Your task to perform on an android device: turn off priority inbox in the gmail app Image 0: 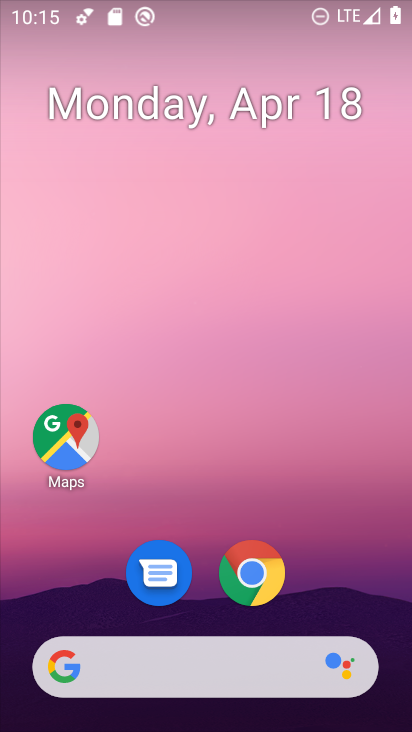
Step 0: drag from (359, 589) to (316, 155)
Your task to perform on an android device: turn off priority inbox in the gmail app Image 1: 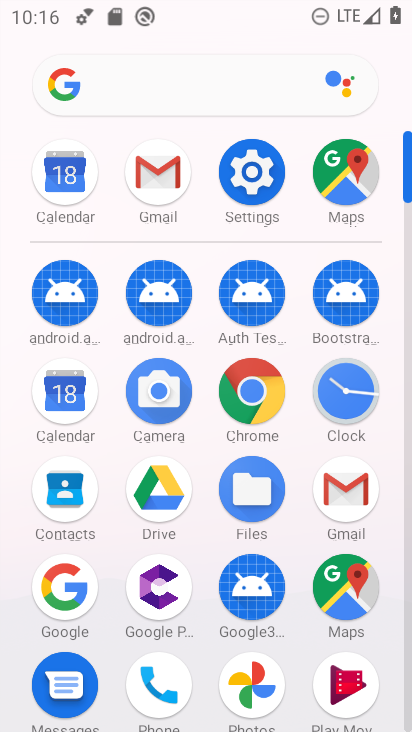
Step 1: click (352, 486)
Your task to perform on an android device: turn off priority inbox in the gmail app Image 2: 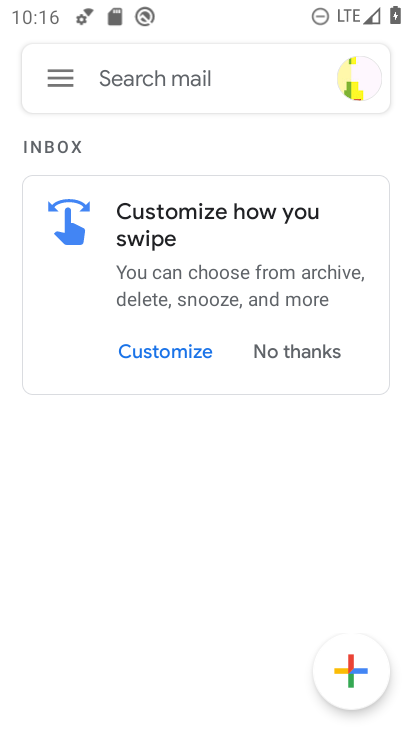
Step 2: click (56, 85)
Your task to perform on an android device: turn off priority inbox in the gmail app Image 3: 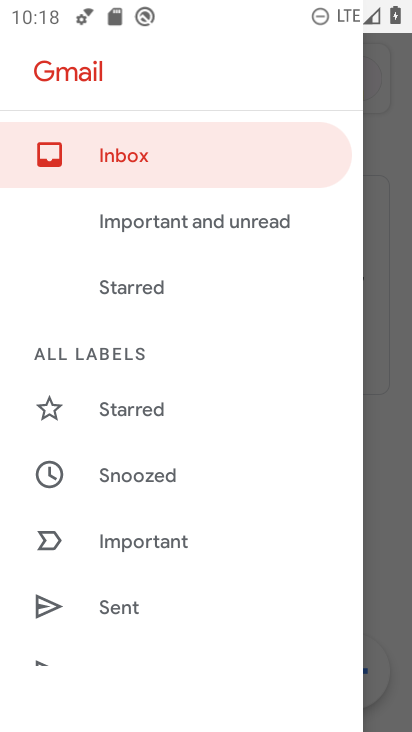
Step 3: drag from (151, 602) to (211, 101)
Your task to perform on an android device: turn off priority inbox in the gmail app Image 4: 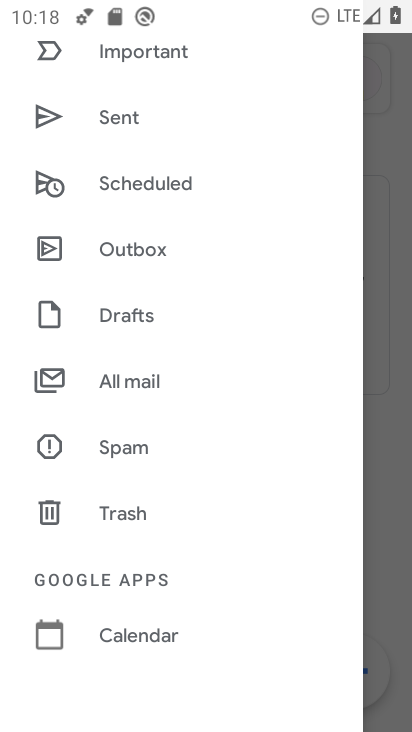
Step 4: drag from (137, 612) to (167, 91)
Your task to perform on an android device: turn off priority inbox in the gmail app Image 5: 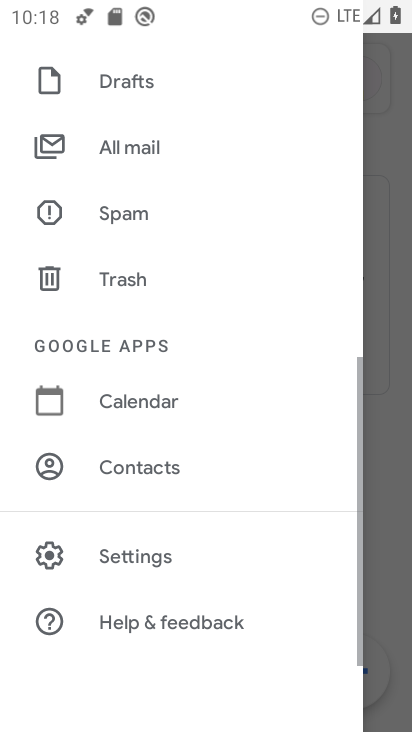
Step 5: click (155, 547)
Your task to perform on an android device: turn off priority inbox in the gmail app Image 6: 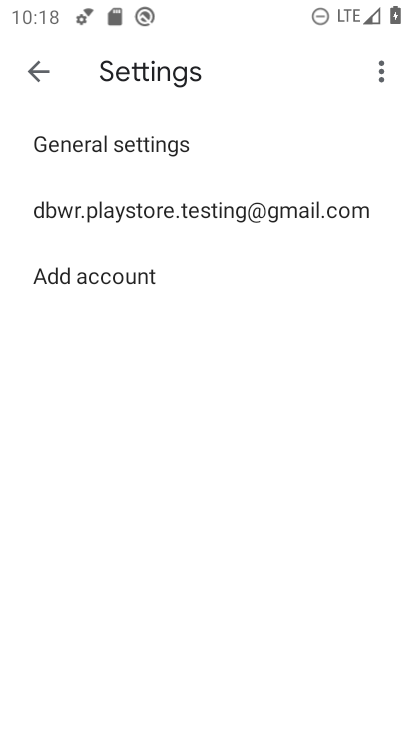
Step 6: click (157, 226)
Your task to perform on an android device: turn off priority inbox in the gmail app Image 7: 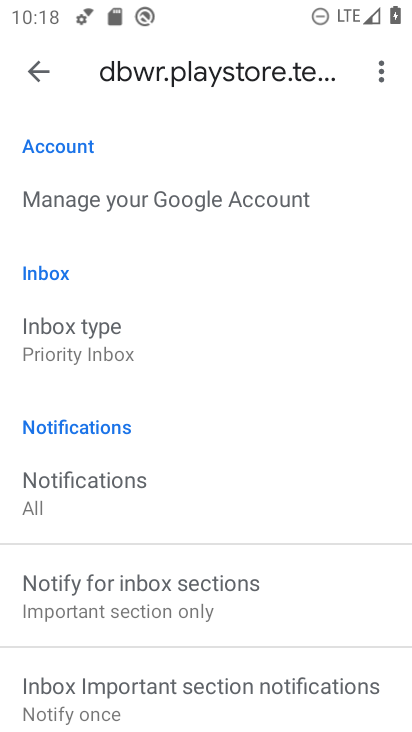
Step 7: click (139, 353)
Your task to perform on an android device: turn off priority inbox in the gmail app Image 8: 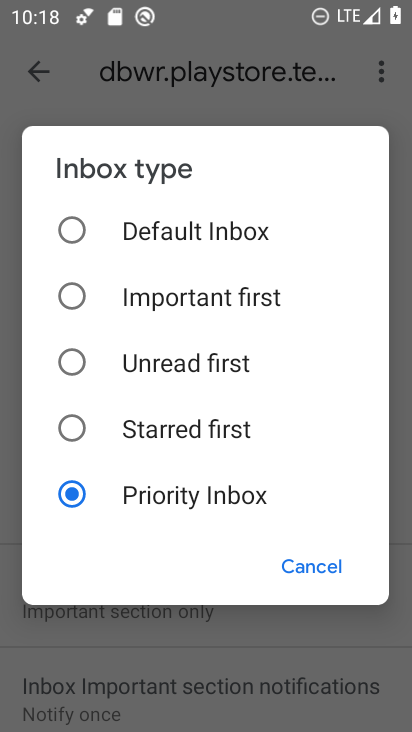
Step 8: click (141, 245)
Your task to perform on an android device: turn off priority inbox in the gmail app Image 9: 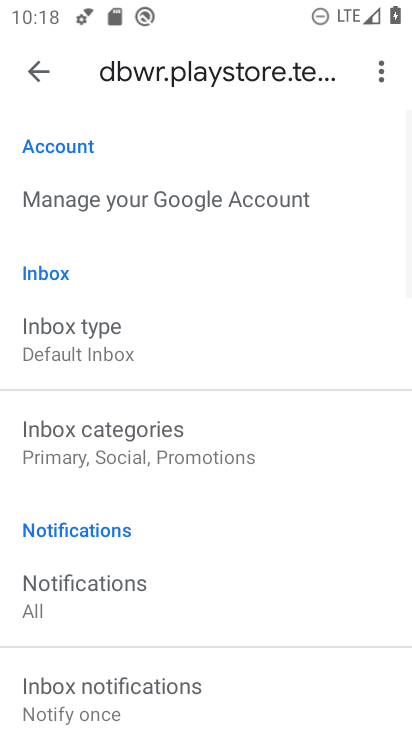
Step 9: task complete